Your task to perform on an android device: add a label to a message in the gmail app Image 0: 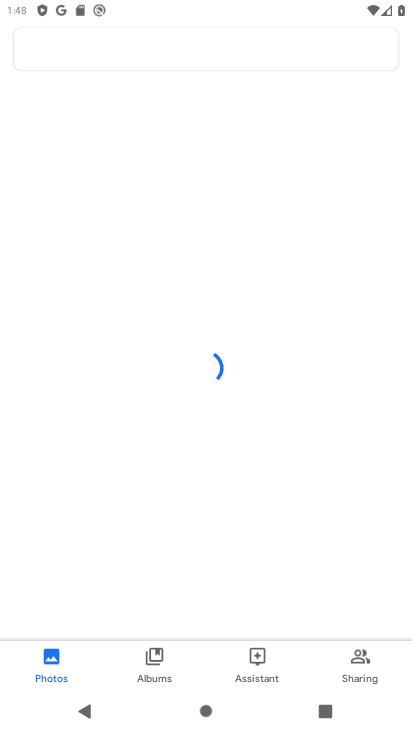
Step 0: press home button
Your task to perform on an android device: add a label to a message in the gmail app Image 1: 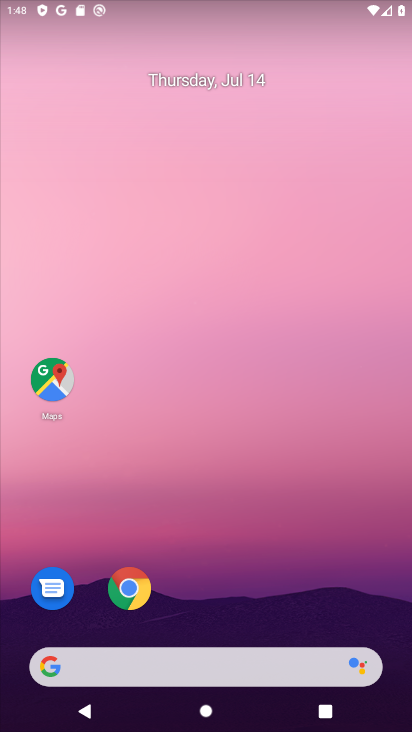
Step 1: drag from (290, 628) to (237, 93)
Your task to perform on an android device: add a label to a message in the gmail app Image 2: 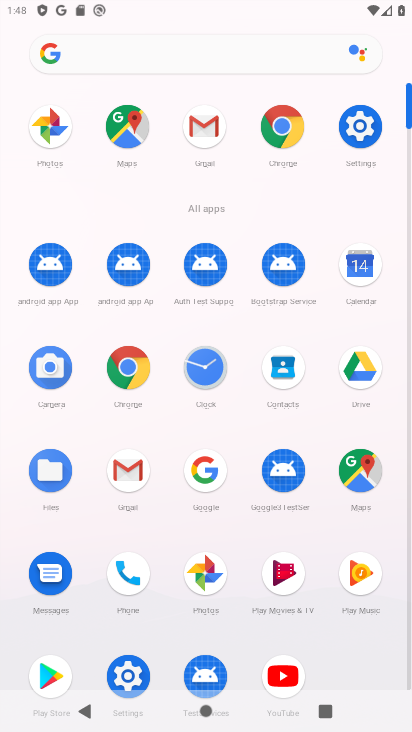
Step 2: click (205, 142)
Your task to perform on an android device: add a label to a message in the gmail app Image 3: 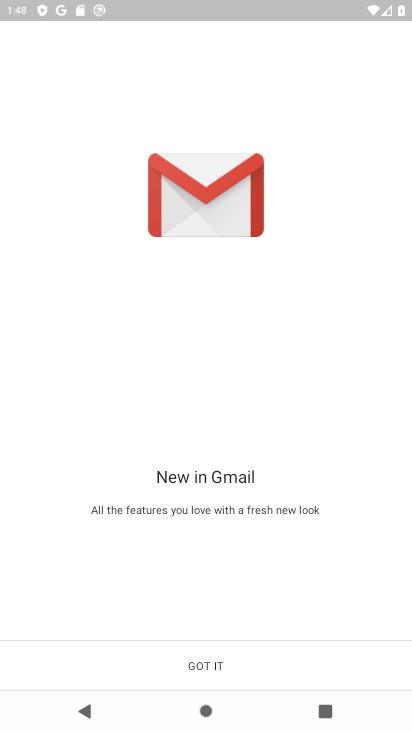
Step 3: click (224, 662)
Your task to perform on an android device: add a label to a message in the gmail app Image 4: 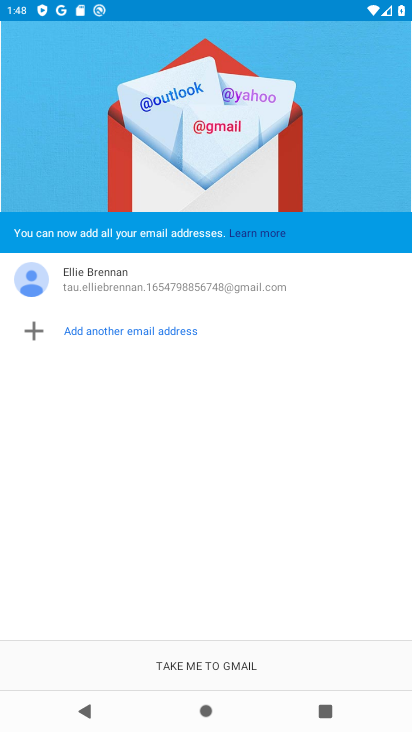
Step 4: click (205, 664)
Your task to perform on an android device: add a label to a message in the gmail app Image 5: 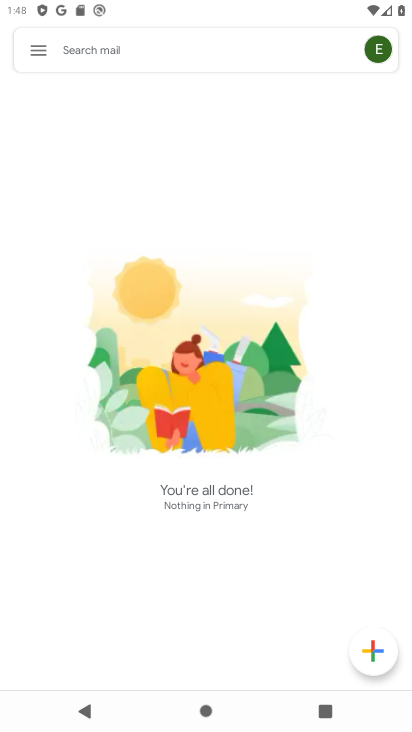
Step 5: task complete